Your task to perform on an android device: Do I have any events tomorrow? Image 0: 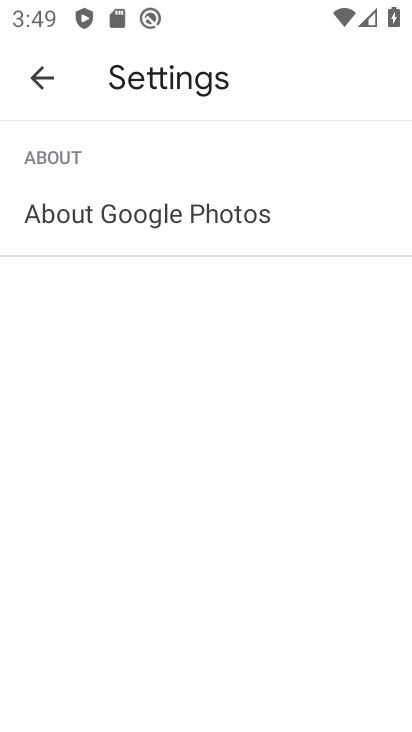
Step 0: press home button
Your task to perform on an android device: Do I have any events tomorrow? Image 1: 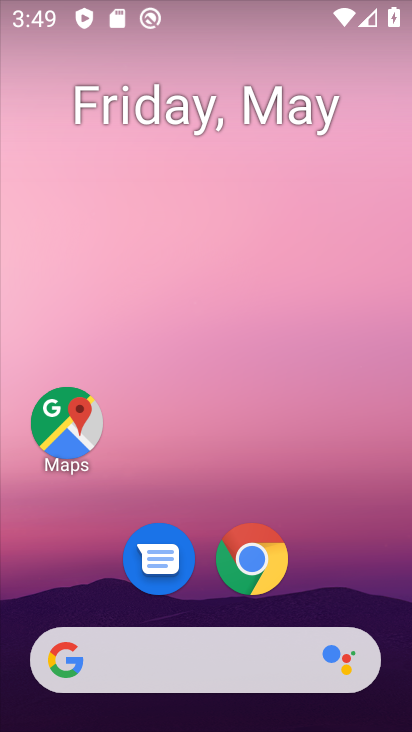
Step 1: drag from (383, 531) to (367, 346)
Your task to perform on an android device: Do I have any events tomorrow? Image 2: 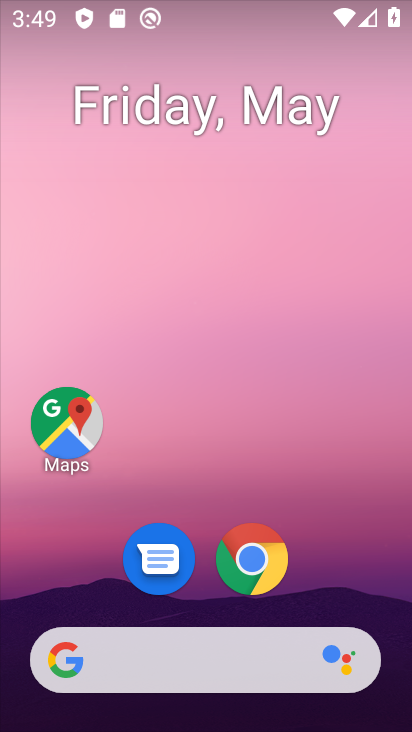
Step 2: drag from (398, 709) to (364, 3)
Your task to perform on an android device: Do I have any events tomorrow? Image 3: 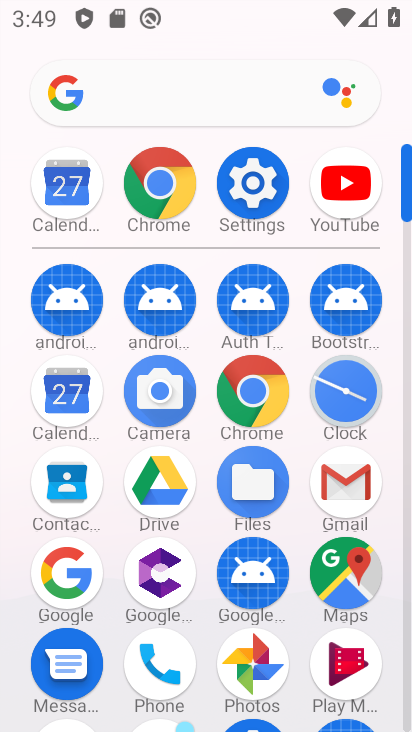
Step 3: click (77, 397)
Your task to perform on an android device: Do I have any events tomorrow? Image 4: 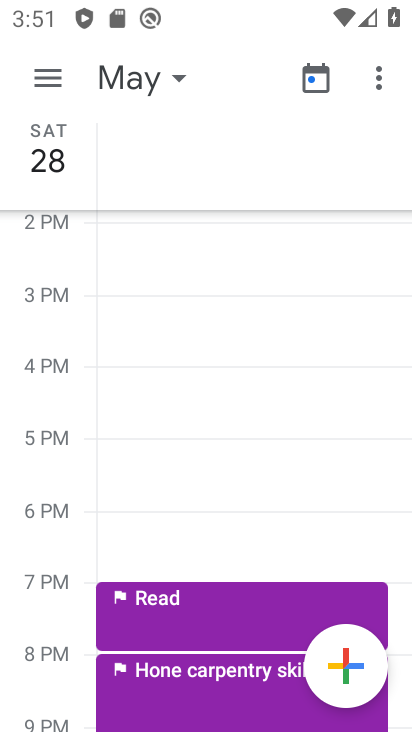
Step 4: task complete